Your task to perform on an android device: Check the weather Image 0: 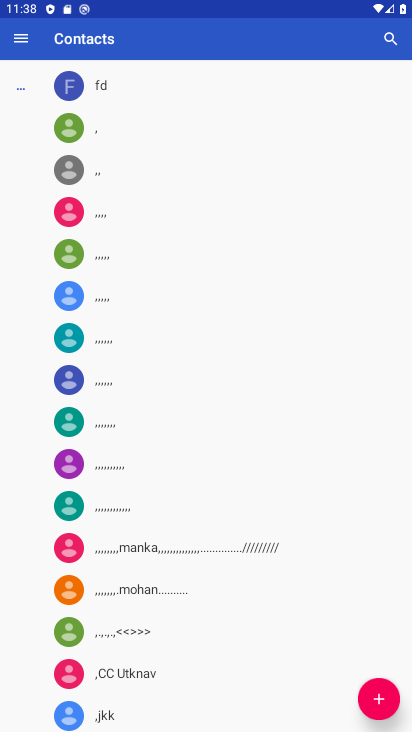
Step 0: press home button
Your task to perform on an android device: Check the weather Image 1: 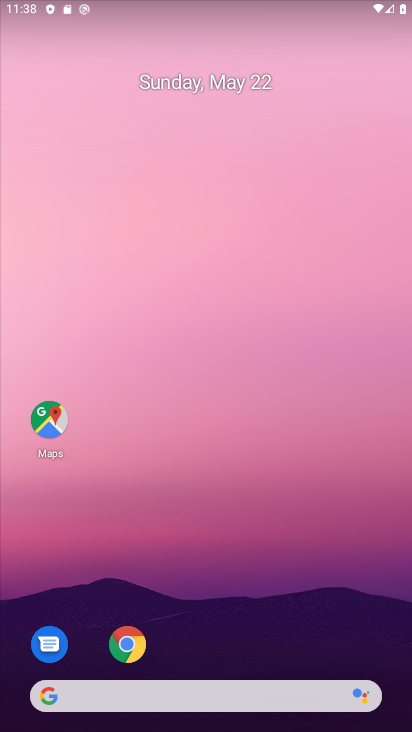
Step 1: drag from (359, 627) to (393, 359)
Your task to perform on an android device: Check the weather Image 2: 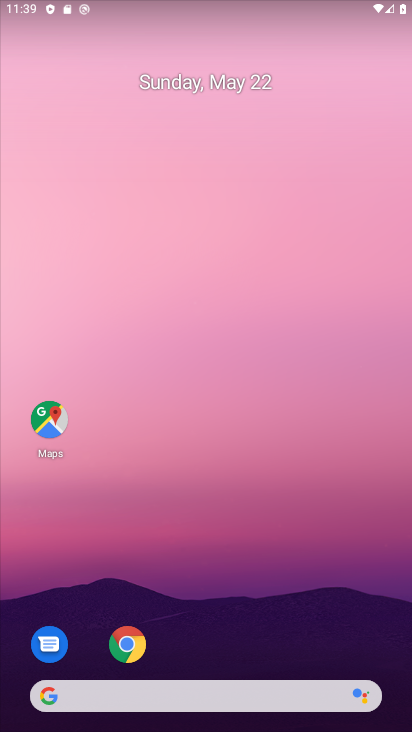
Step 2: drag from (250, 609) to (243, 25)
Your task to perform on an android device: Check the weather Image 3: 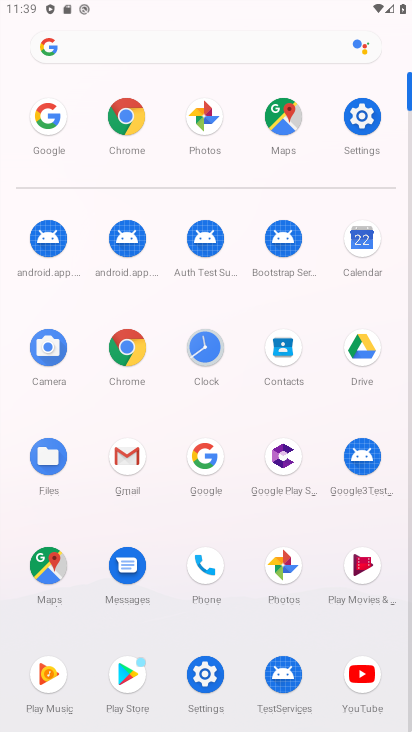
Step 3: click (188, 457)
Your task to perform on an android device: Check the weather Image 4: 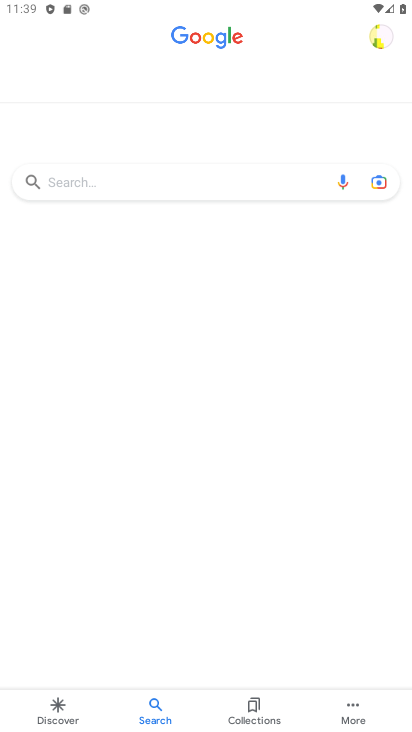
Step 4: click (145, 182)
Your task to perform on an android device: Check the weather Image 5: 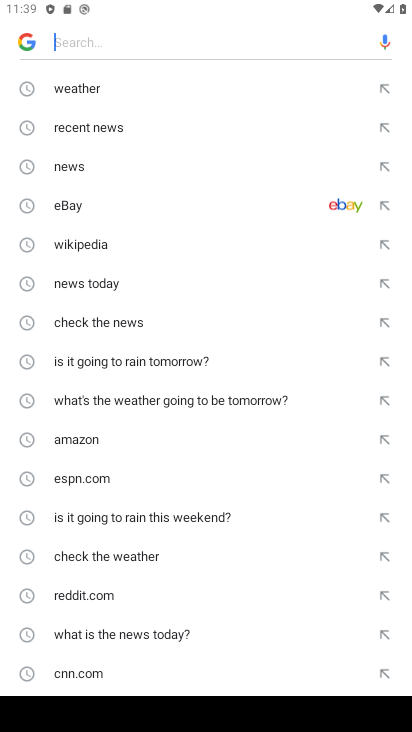
Step 5: click (101, 91)
Your task to perform on an android device: Check the weather Image 6: 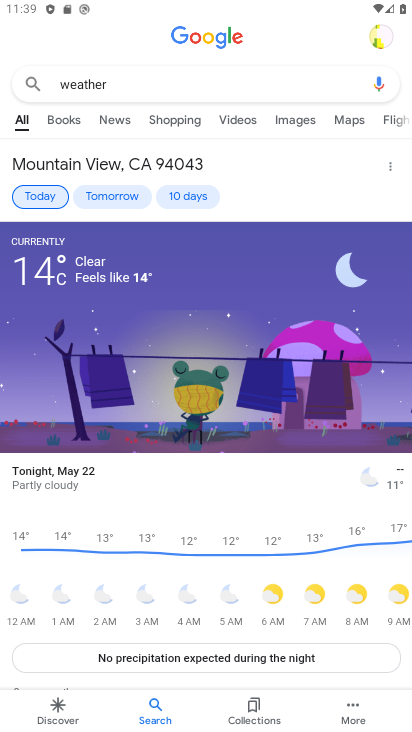
Step 6: task complete